Your task to perform on an android device: Clear the shopping cart on newegg. Search for "logitech g910" on newegg, select the first entry, and add it to the cart. Image 0: 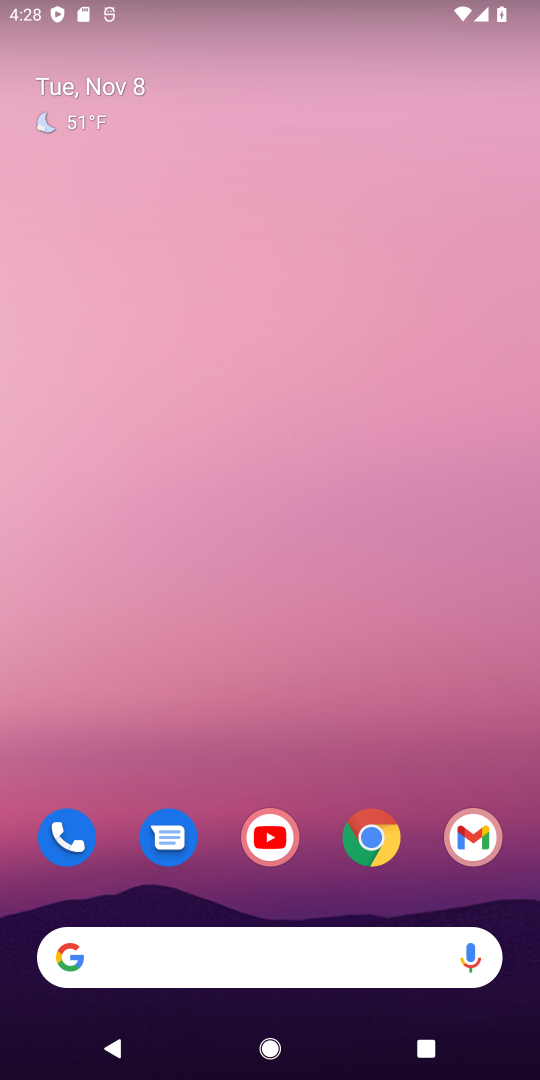
Step 0: click (386, 819)
Your task to perform on an android device: Clear the shopping cart on newegg. Search for "logitech g910" on newegg, select the first entry, and add it to the cart. Image 1: 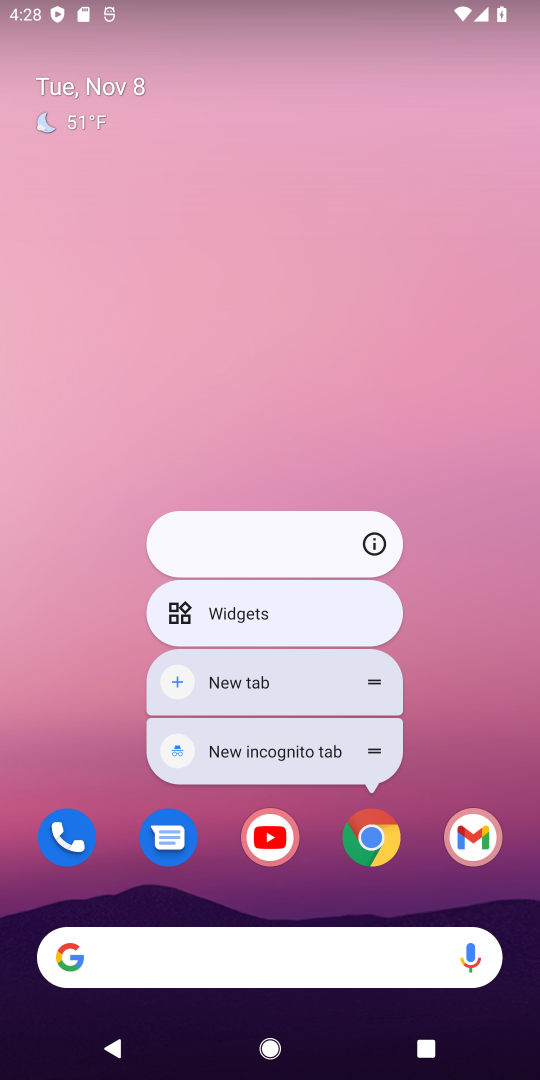
Step 1: click (396, 838)
Your task to perform on an android device: Clear the shopping cart on newegg. Search for "logitech g910" on newegg, select the first entry, and add it to the cart. Image 2: 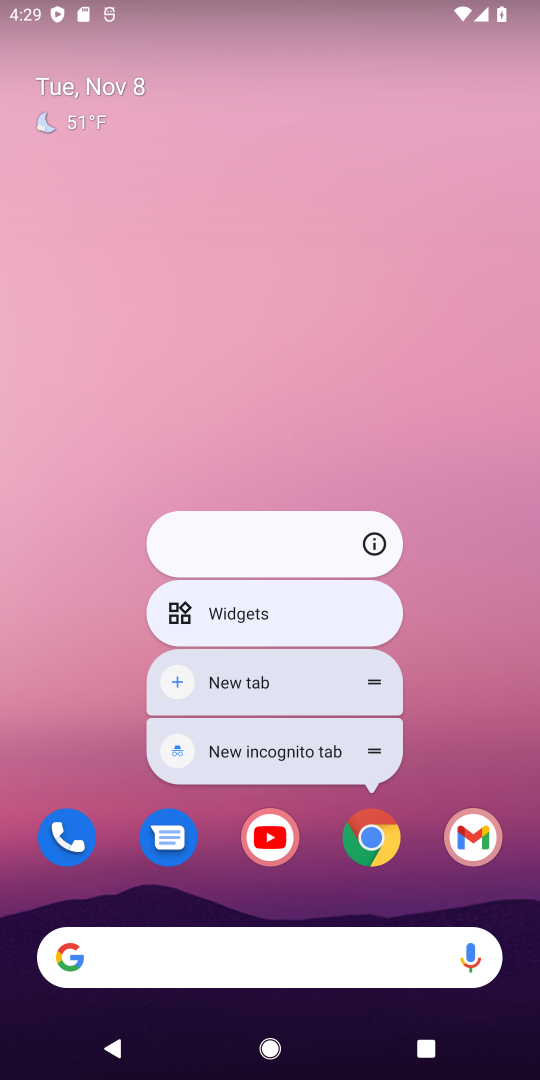
Step 2: click (395, 837)
Your task to perform on an android device: Clear the shopping cart on newegg. Search for "logitech g910" on newegg, select the first entry, and add it to the cart. Image 3: 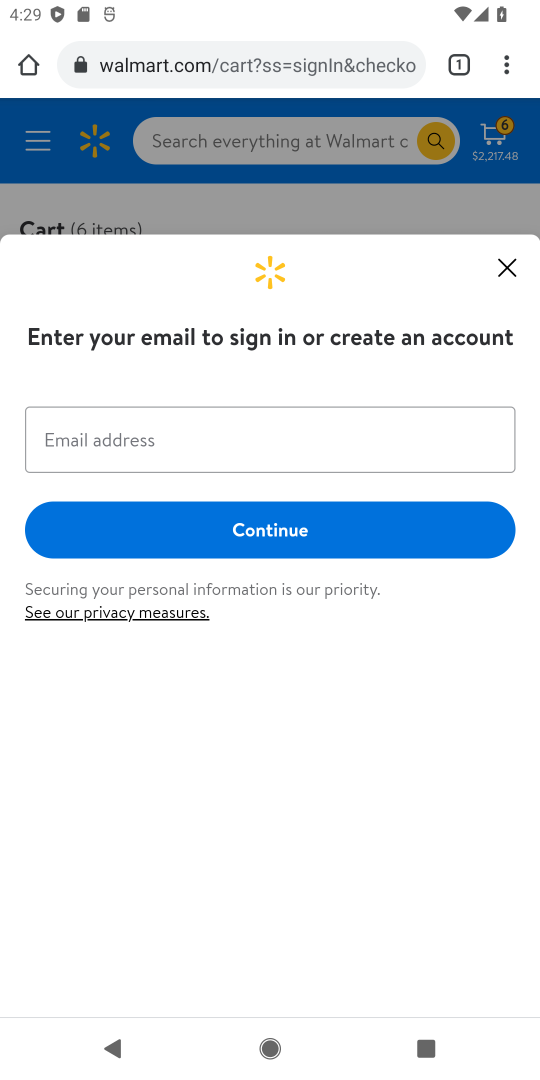
Step 3: click (155, 59)
Your task to perform on an android device: Clear the shopping cart on newegg. Search for "logitech g910" on newegg, select the first entry, and add it to the cart. Image 4: 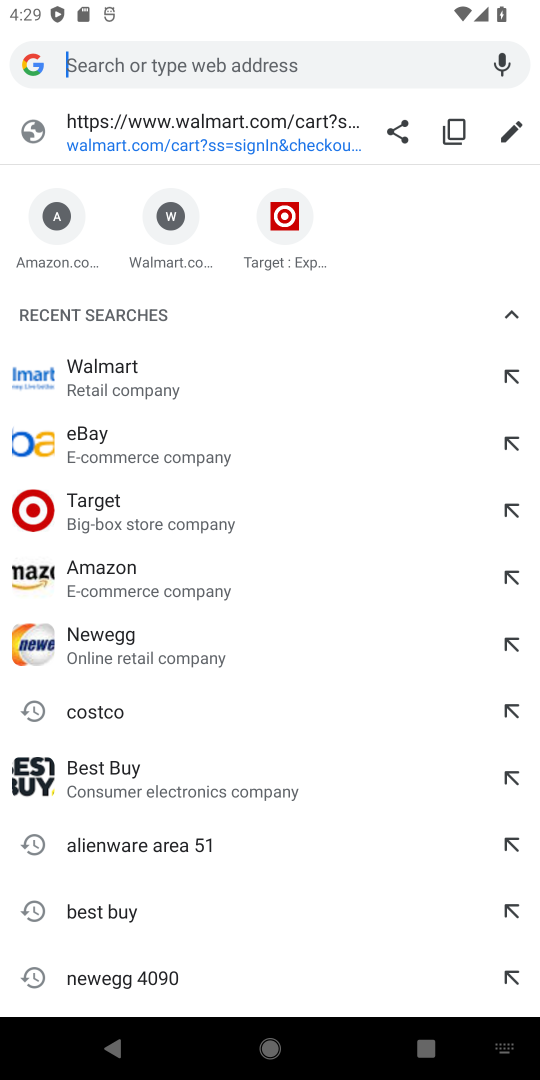
Step 4: click (97, 647)
Your task to perform on an android device: Clear the shopping cart on newegg. Search for "logitech g910" on newegg, select the first entry, and add it to the cart. Image 5: 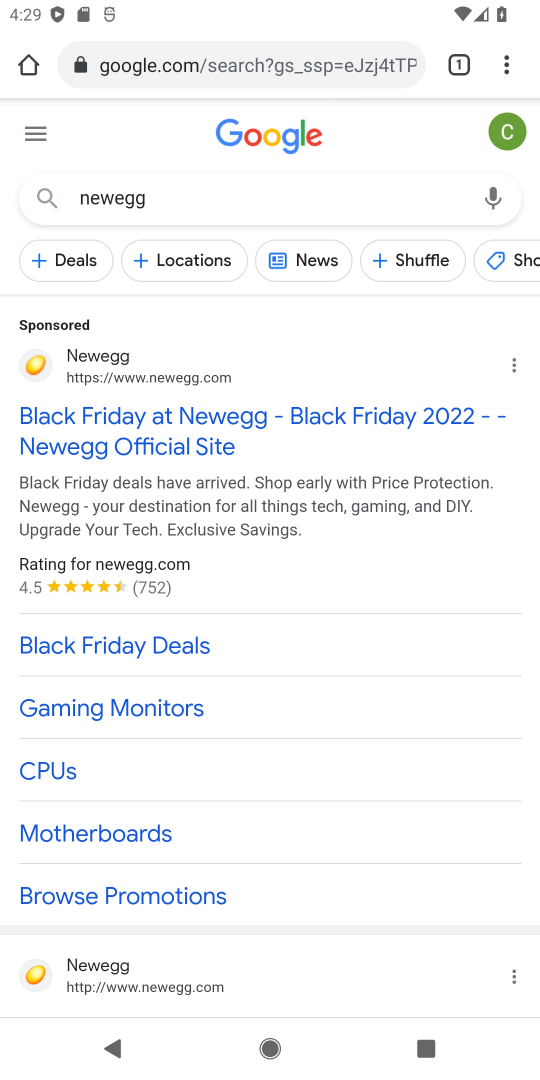
Step 5: drag from (196, 835) to (199, 229)
Your task to perform on an android device: Clear the shopping cart on newegg. Search for "logitech g910" on newegg, select the first entry, and add it to the cart. Image 6: 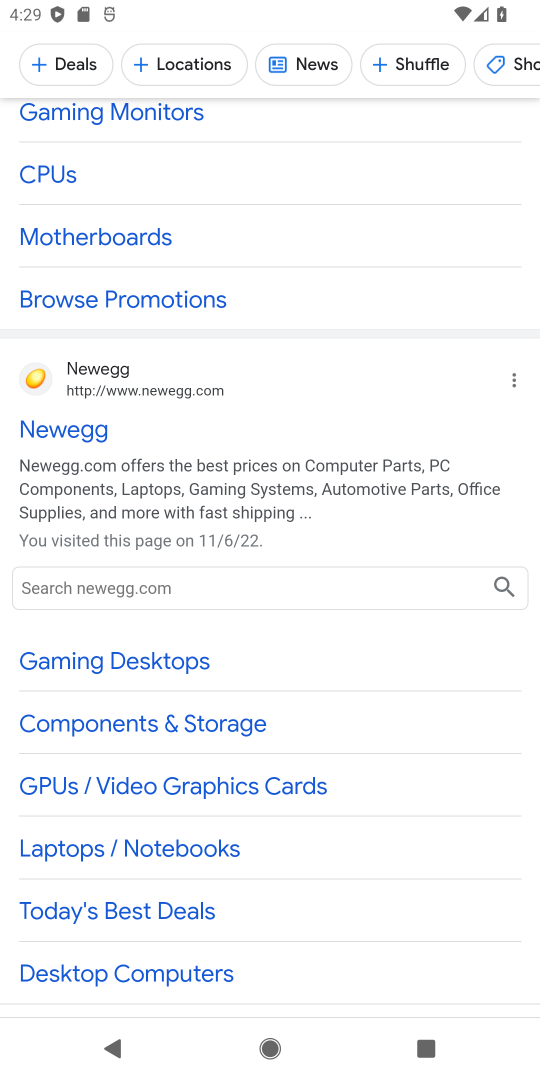
Step 6: click (82, 421)
Your task to perform on an android device: Clear the shopping cart on newegg. Search for "logitech g910" on newegg, select the first entry, and add it to the cart. Image 7: 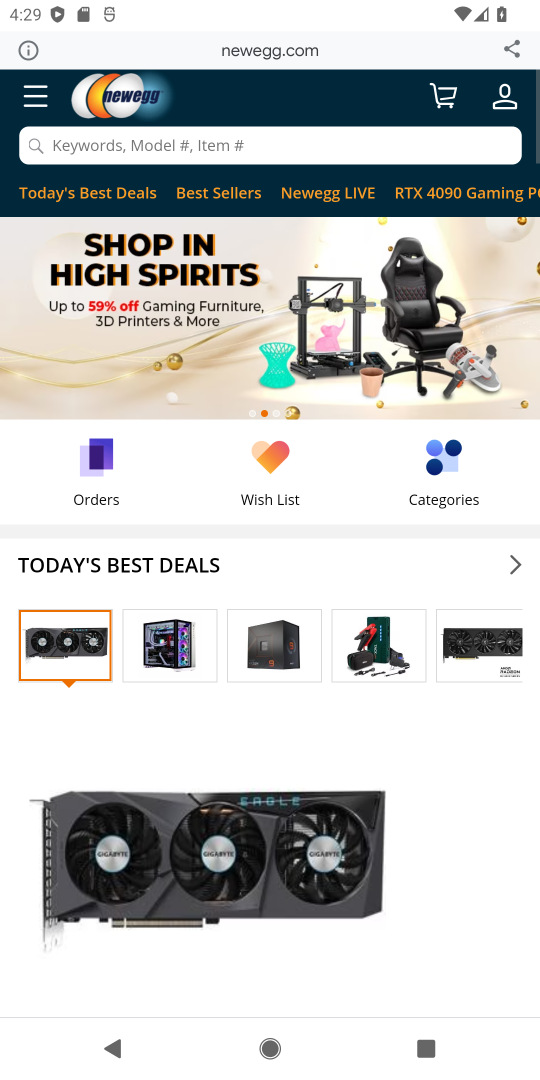
Step 7: click (145, 144)
Your task to perform on an android device: Clear the shopping cart on newegg. Search for "logitech g910" on newegg, select the first entry, and add it to the cart. Image 8: 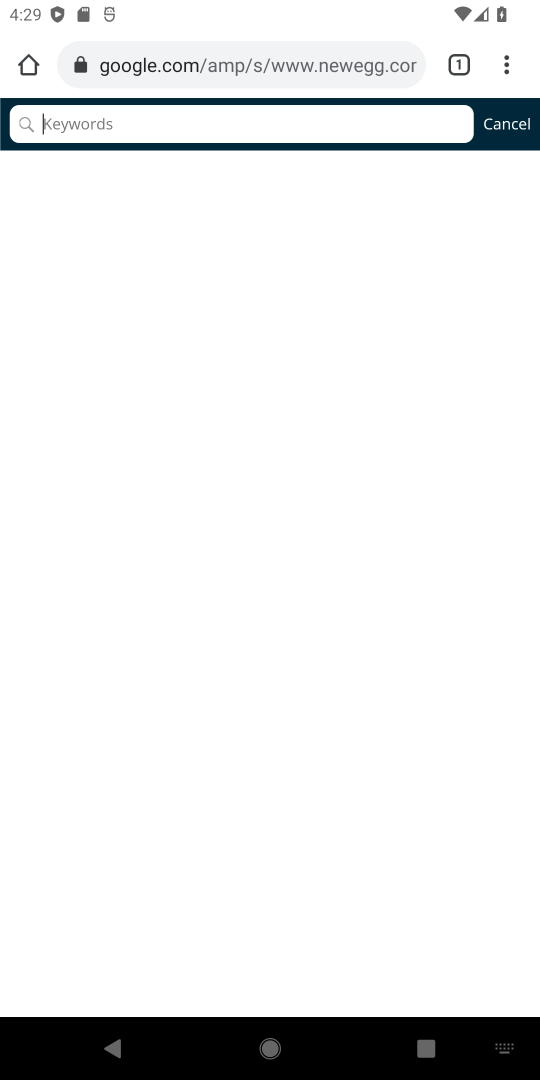
Step 8: type "logitech g 910"
Your task to perform on an android device: Clear the shopping cart on newegg. Search for "logitech g910" on newegg, select the first entry, and add it to the cart. Image 9: 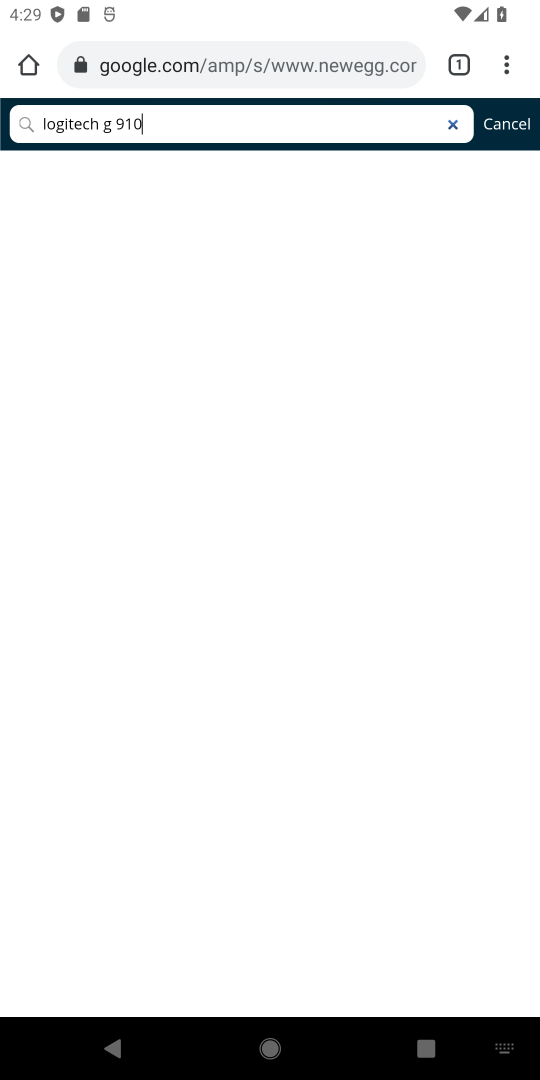
Step 9: click (29, 124)
Your task to perform on an android device: Clear the shopping cart on newegg. Search for "logitech g910" on newegg, select the first entry, and add it to the cart. Image 10: 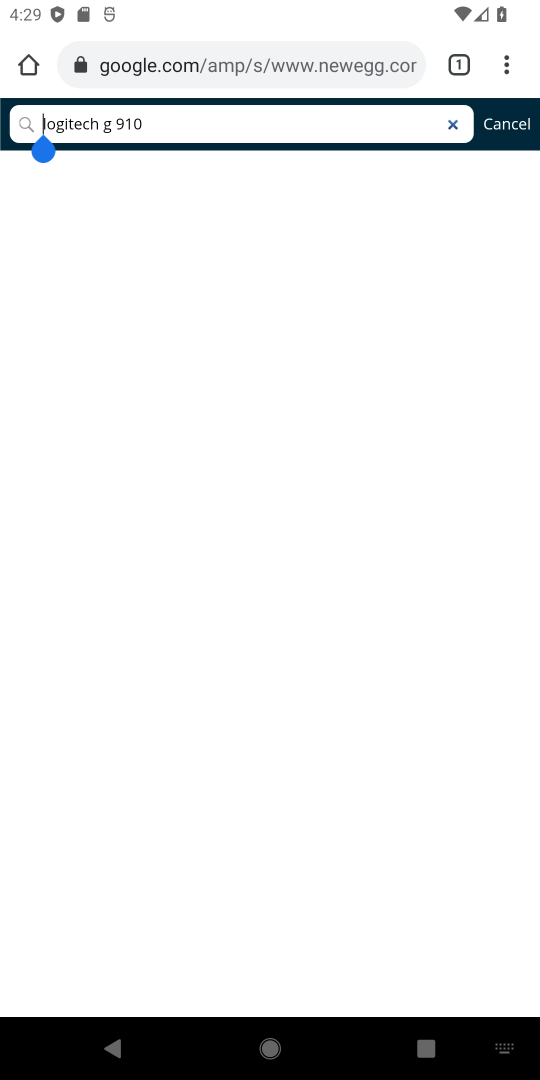
Step 10: click (462, 127)
Your task to perform on an android device: Clear the shopping cart on newegg. Search for "logitech g910" on newegg, select the first entry, and add it to the cart. Image 11: 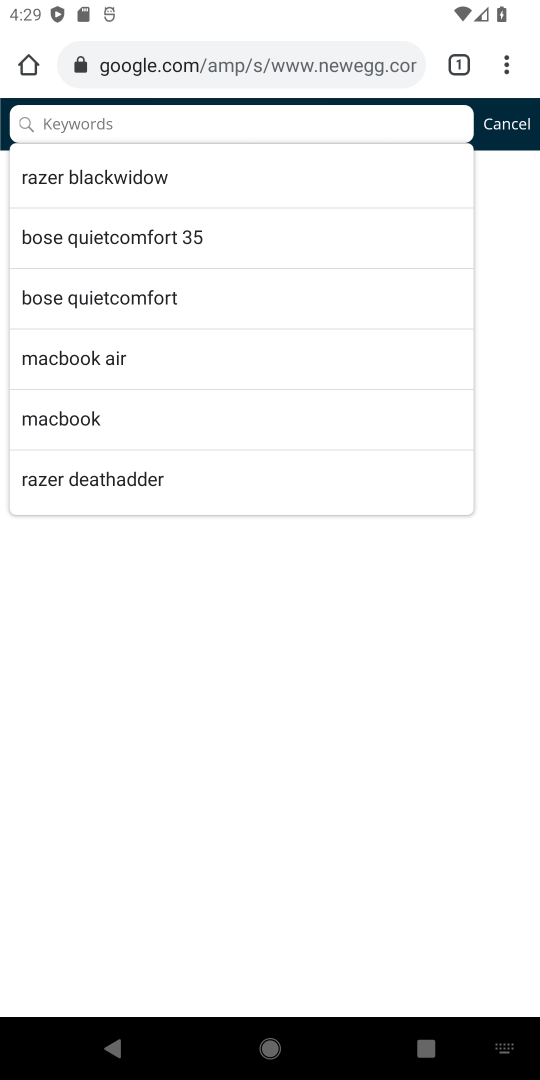
Step 11: press back button
Your task to perform on an android device: Clear the shopping cart on newegg. Search for "logitech g910" on newegg, select the first entry, and add it to the cart. Image 12: 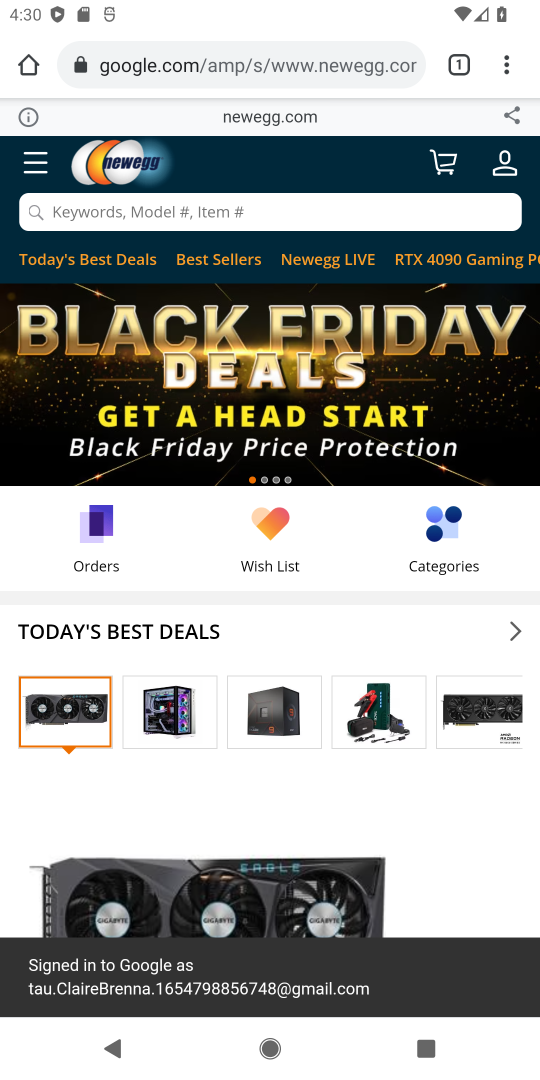
Step 12: drag from (166, 658) to (262, 174)
Your task to perform on an android device: Clear the shopping cart on newegg. Search for "logitech g910" on newegg, select the first entry, and add it to the cart. Image 13: 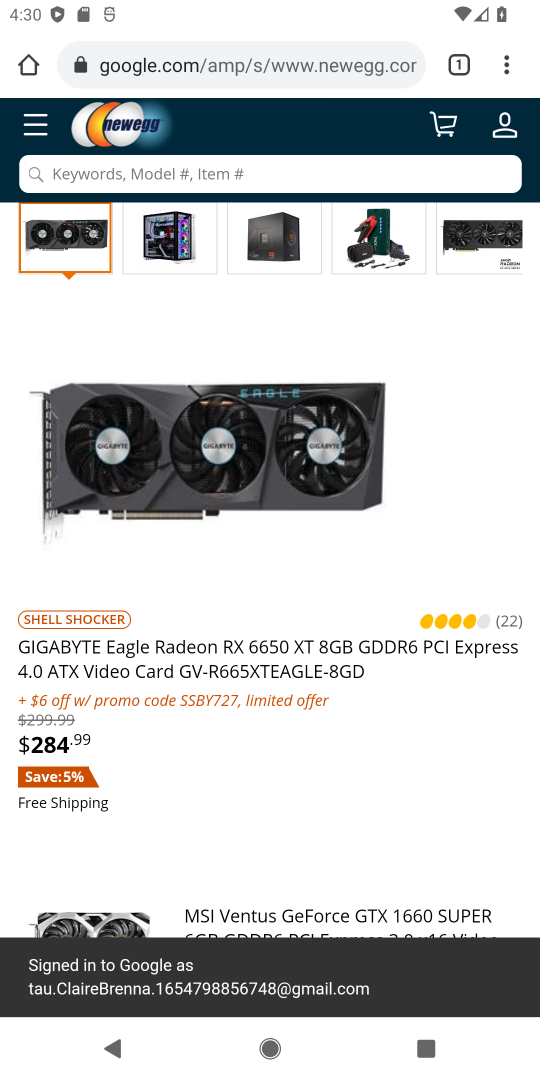
Step 13: press back button
Your task to perform on an android device: Clear the shopping cart on newegg. Search for "logitech g910" on newegg, select the first entry, and add it to the cart. Image 14: 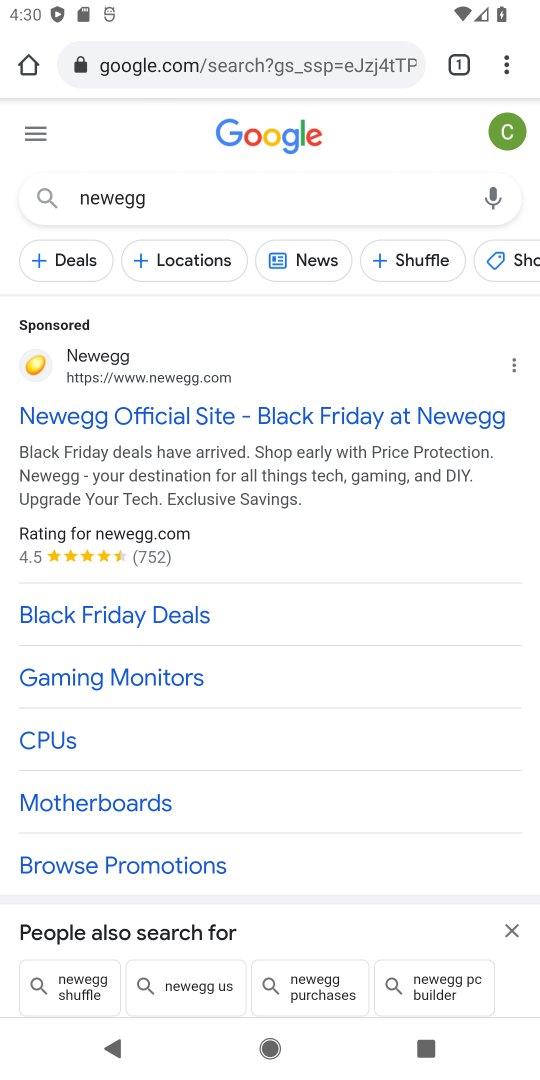
Step 14: drag from (272, 645) to (287, 248)
Your task to perform on an android device: Clear the shopping cart on newegg. Search for "logitech g910" on newegg, select the first entry, and add it to the cart. Image 15: 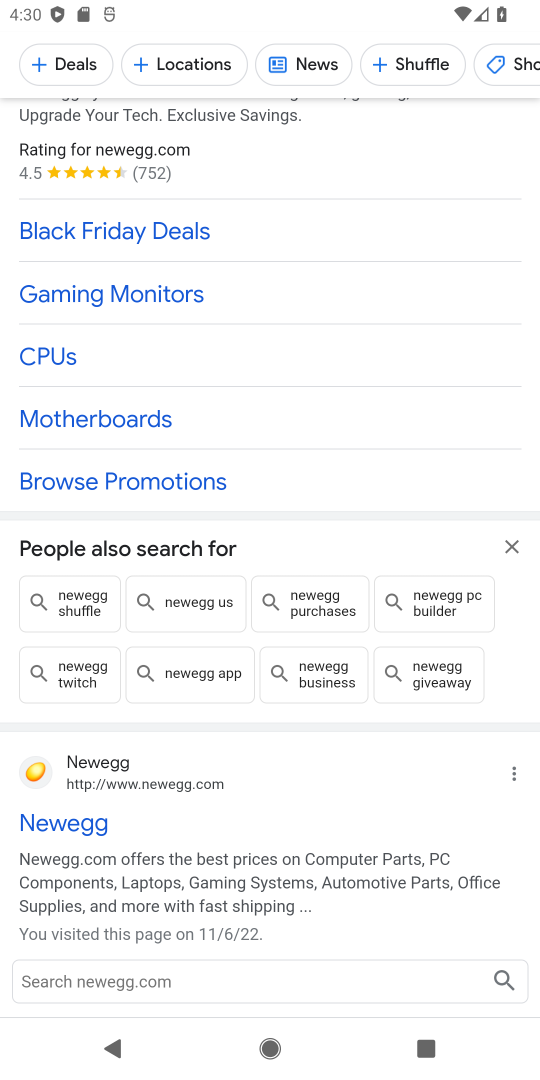
Step 15: drag from (130, 889) to (199, 412)
Your task to perform on an android device: Clear the shopping cart on newegg. Search for "logitech g910" on newegg, select the first entry, and add it to the cart. Image 16: 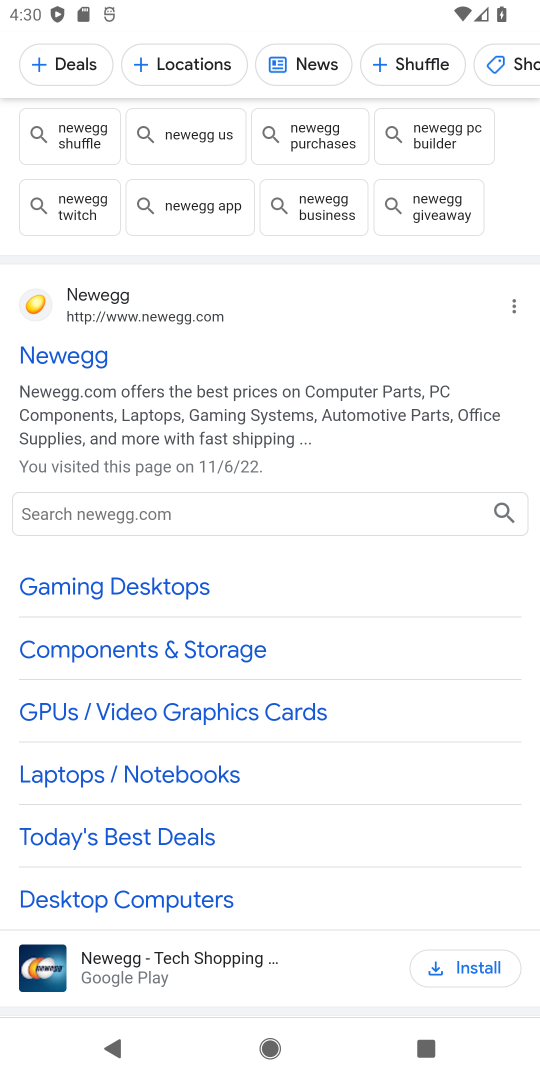
Step 16: click (94, 955)
Your task to perform on an android device: Clear the shopping cart on newegg. Search for "logitech g910" on newegg, select the first entry, and add it to the cart. Image 17: 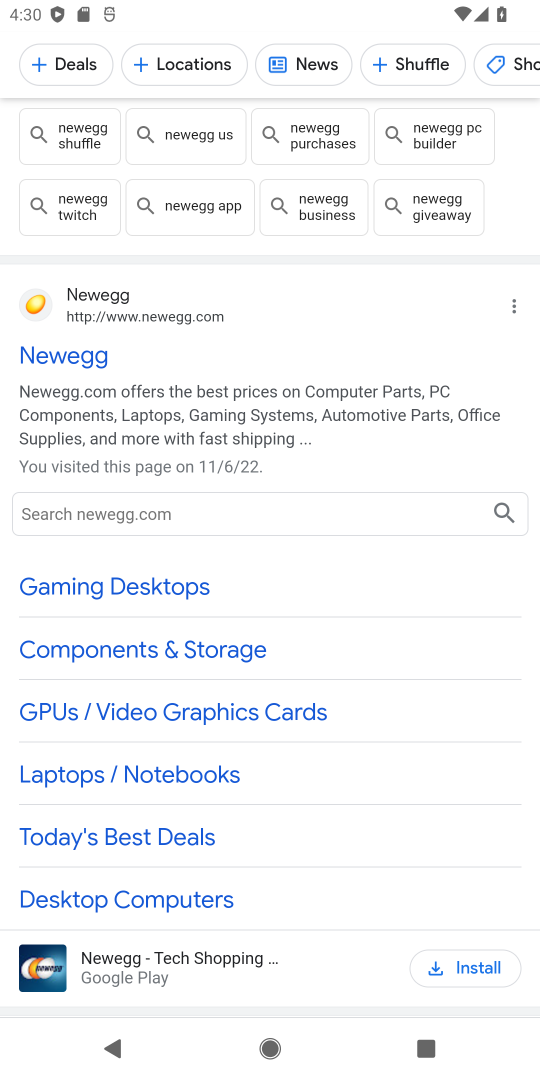
Step 17: click (96, 953)
Your task to perform on an android device: Clear the shopping cart on newegg. Search for "logitech g910" on newegg, select the first entry, and add it to the cart. Image 18: 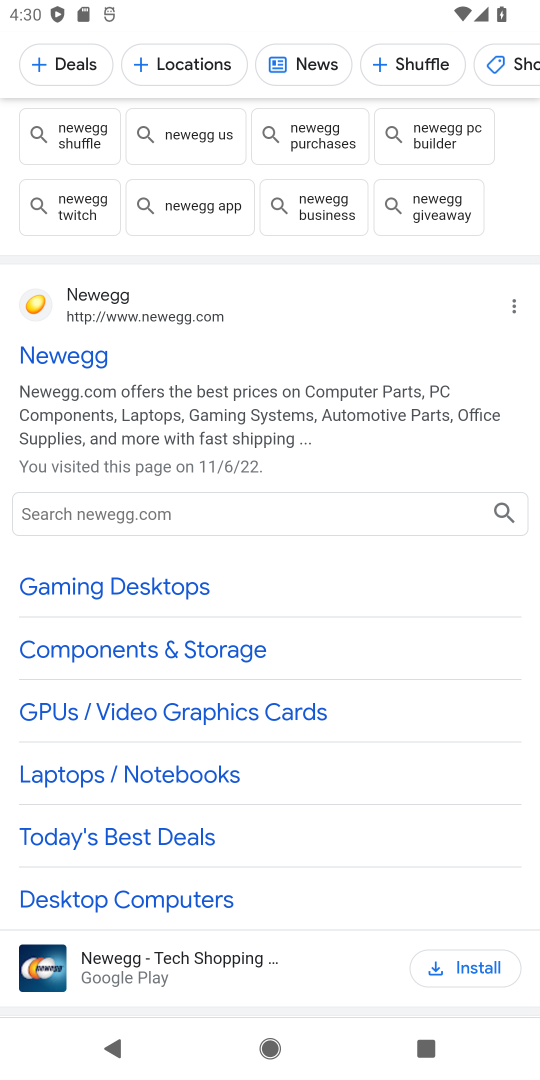
Step 18: click (93, 953)
Your task to perform on an android device: Clear the shopping cart on newegg. Search for "logitech g910" on newegg, select the first entry, and add it to the cart. Image 19: 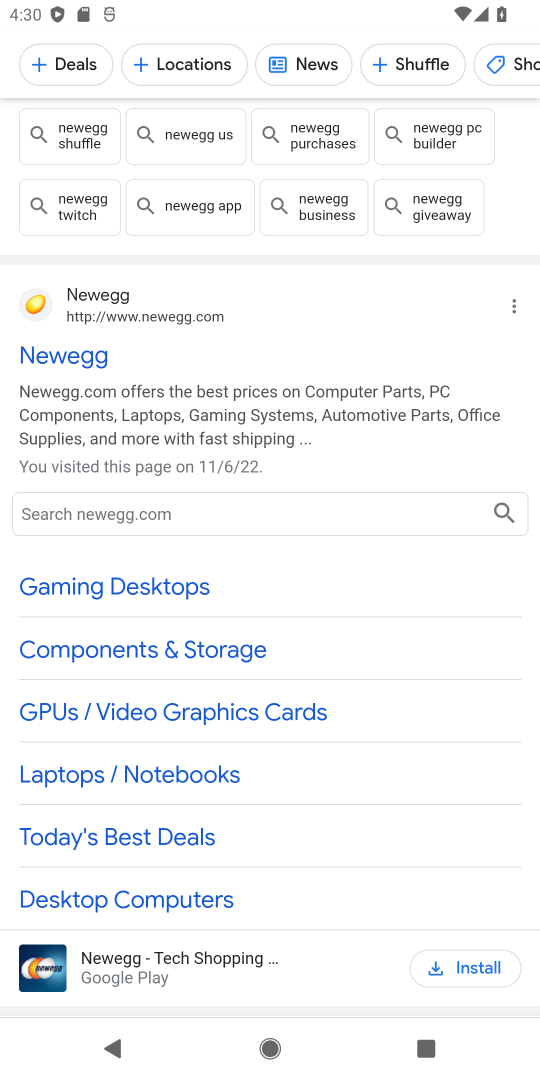
Step 19: drag from (271, 861) to (298, 271)
Your task to perform on an android device: Clear the shopping cart on newegg. Search for "logitech g910" on newegg, select the first entry, and add it to the cart. Image 20: 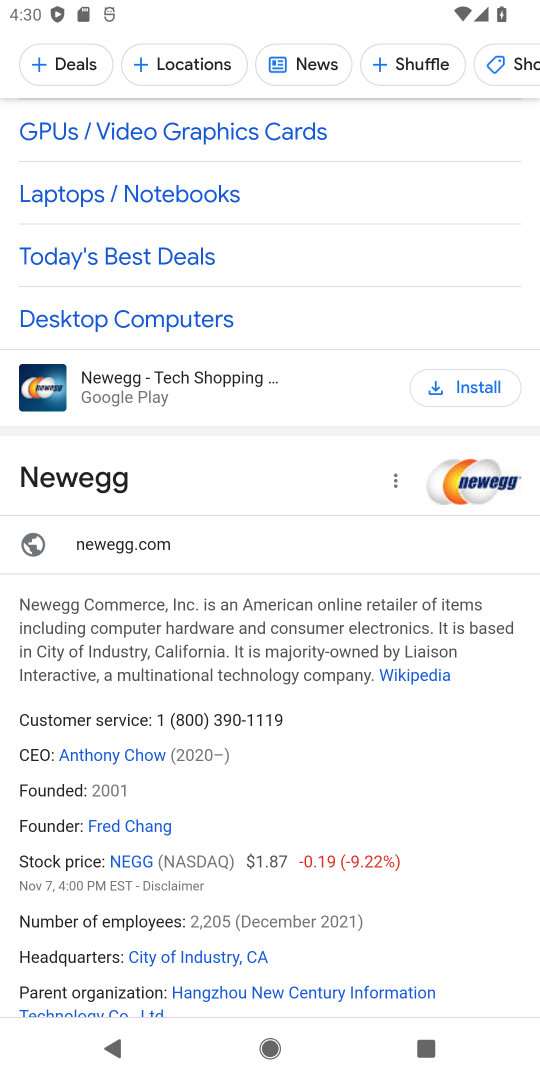
Step 20: drag from (205, 680) to (254, 226)
Your task to perform on an android device: Clear the shopping cart on newegg. Search for "logitech g910" on newegg, select the first entry, and add it to the cart. Image 21: 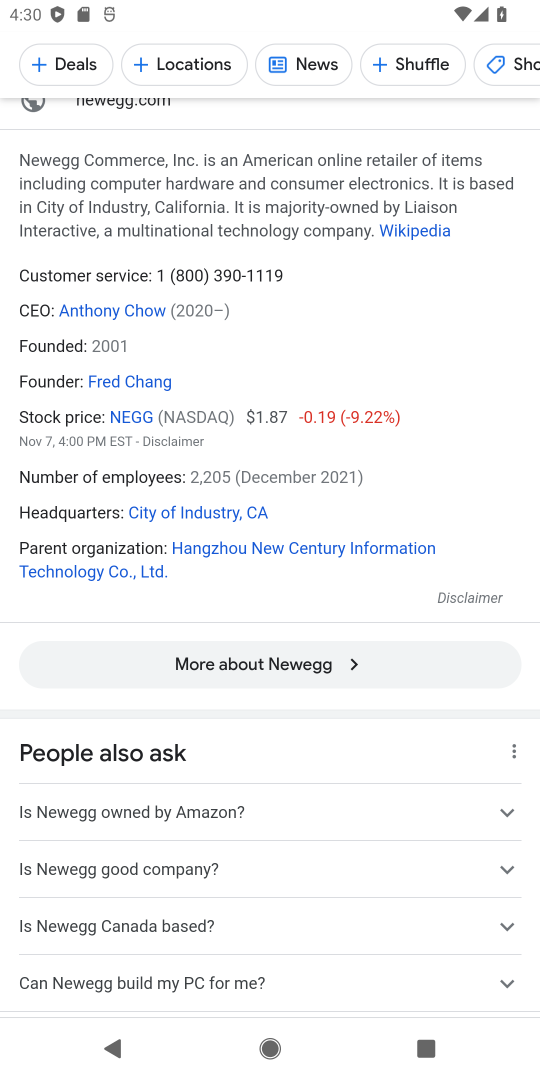
Step 21: drag from (257, 396) to (221, 1032)
Your task to perform on an android device: Clear the shopping cart on newegg. Search for "logitech g910" on newegg, select the first entry, and add it to the cart. Image 22: 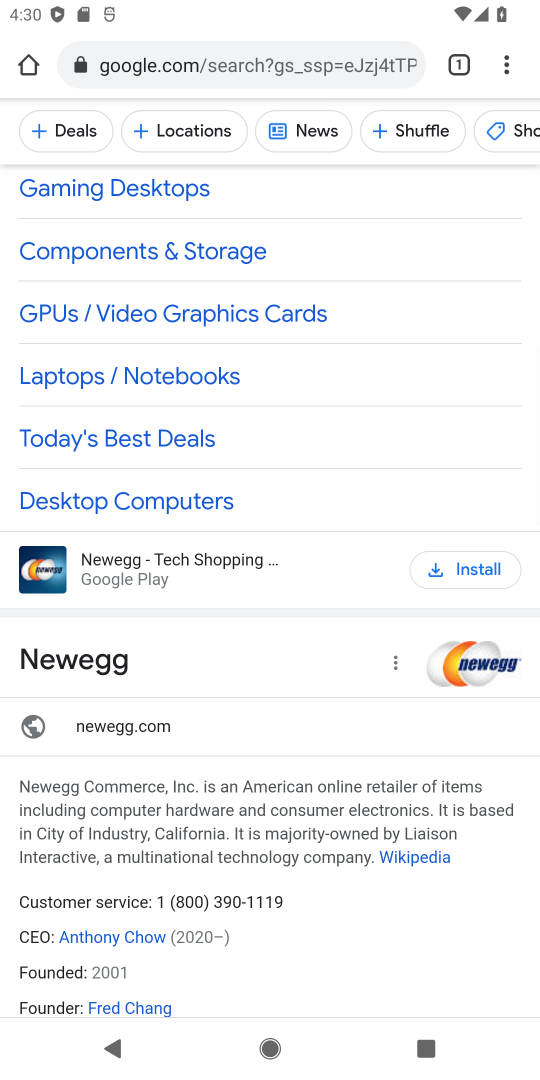
Step 22: click (164, 885)
Your task to perform on an android device: Clear the shopping cart on newegg. Search for "logitech g910" on newegg, select the first entry, and add it to the cart. Image 23: 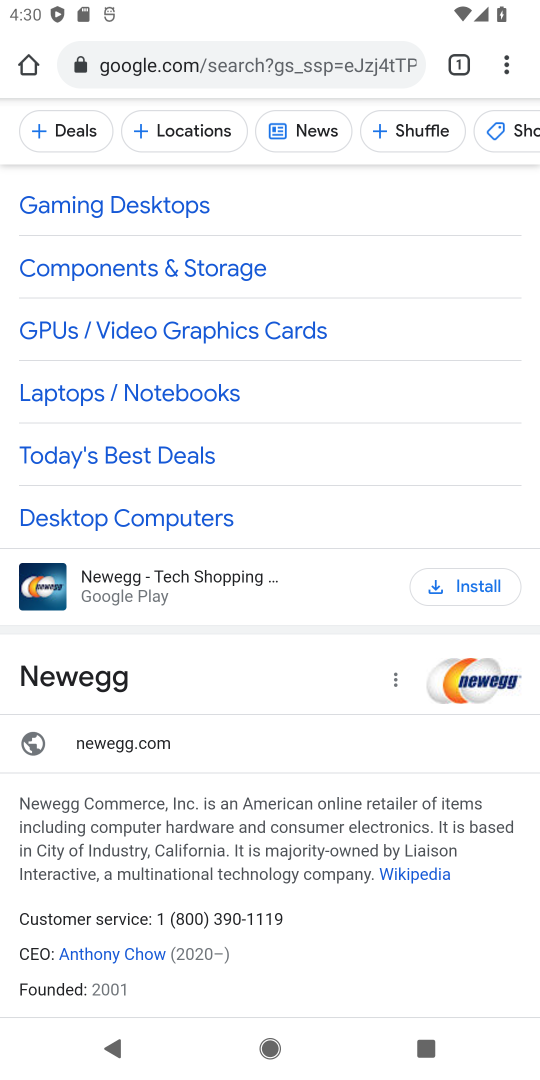
Step 23: drag from (180, 348) to (188, 740)
Your task to perform on an android device: Clear the shopping cart on newegg. Search for "logitech g910" on newegg, select the first entry, and add it to the cart. Image 24: 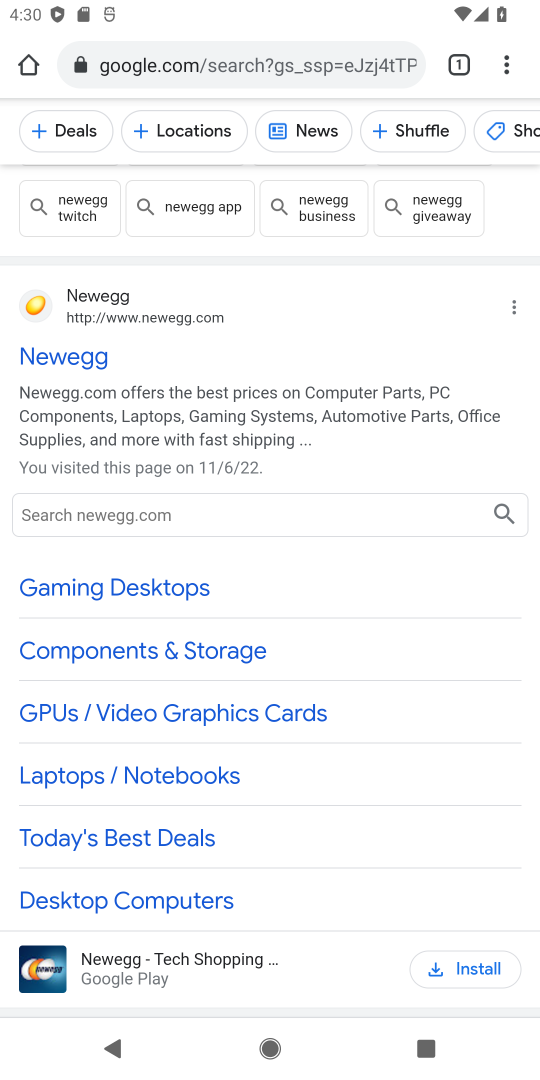
Step 24: drag from (177, 562) to (177, 795)
Your task to perform on an android device: Clear the shopping cart on newegg. Search for "logitech g910" on newegg, select the first entry, and add it to the cart. Image 25: 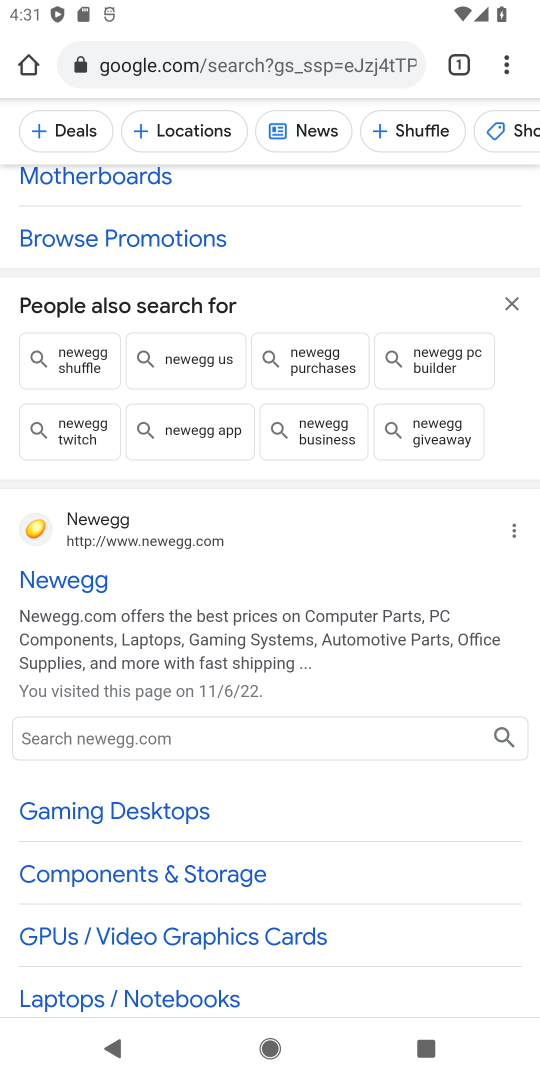
Step 25: click (79, 580)
Your task to perform on an android device: Clear the shopping cart on newegg. Search for "logitech g910" on newegg, select the first entry, and add it to the cart. Image 26: 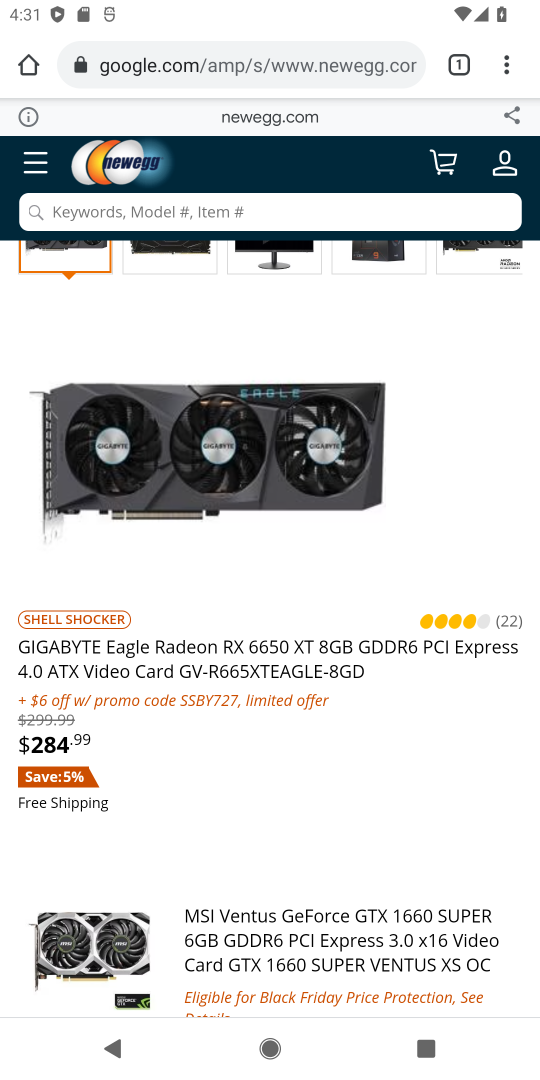
Step 26: click (162, 220)
Your task to perform on an android device: Clear the shopping cart on newegg. Search for "logitech g910" on newegg, select the first entry, and add it to the cart. Image 27: 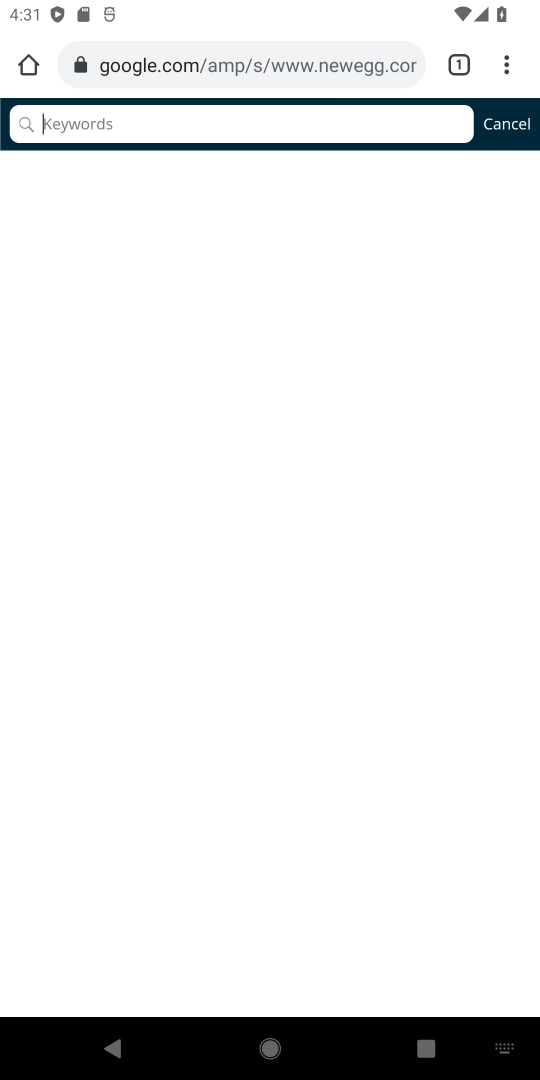
Step 27: type "logitech 910"
Your task to perform on an android device: Clear the shopping cart on newegg. Search for "logitech g910" on newegg, select the first entry, and add it to the cart. Image 28: 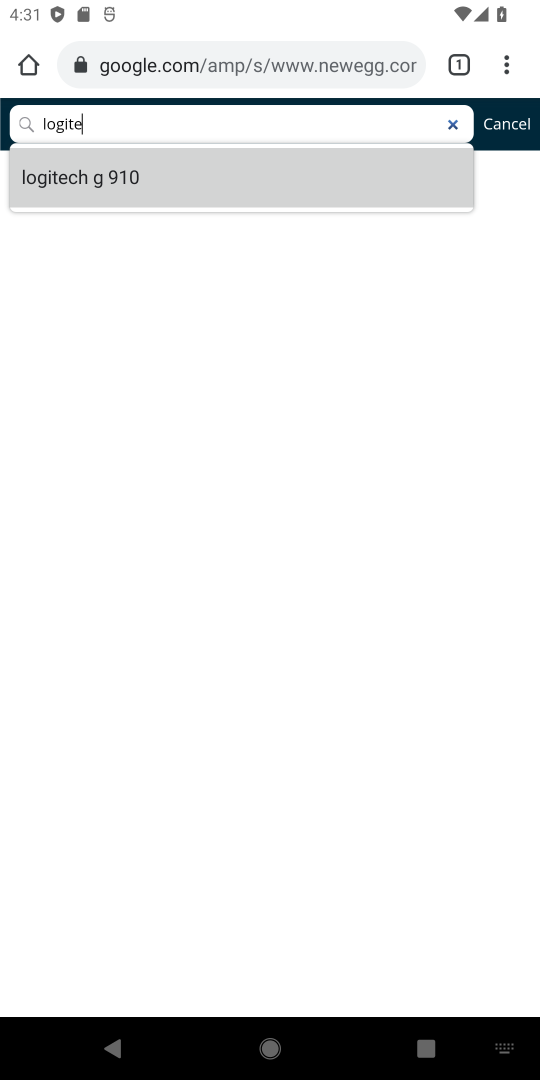
Step 28: type ""
Your task to perform on an android device: Clear the shopping cart on newegg. Search for "logitech g910" on newegg, select the first entry, and add it to the cart. Image 29: 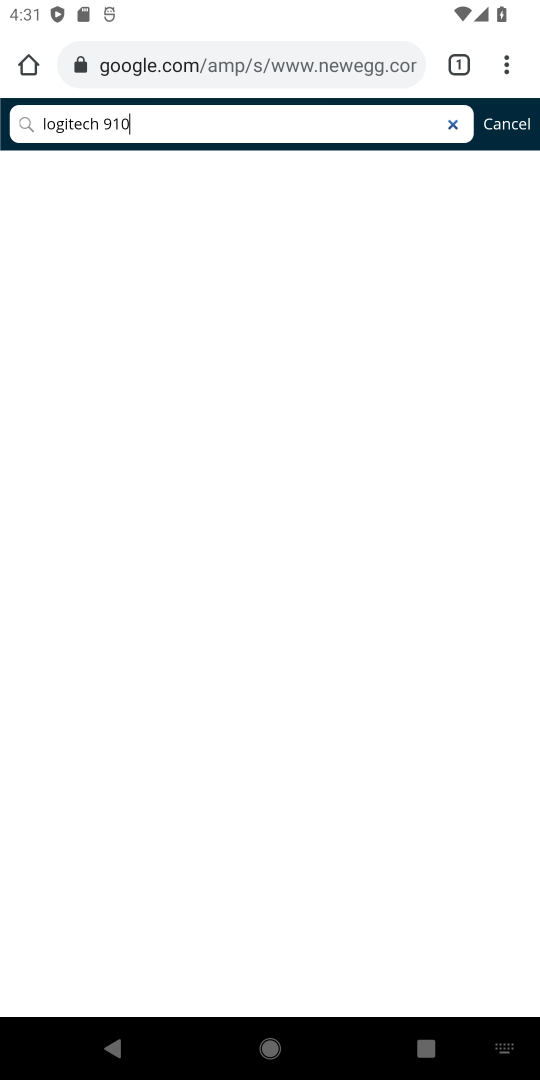
Step 29: type ""
Your task to perform on an android device: Clear the shopping cart on newegg. Search for "logitech g910" on newegg, select the first entry, and add it to the cart. Image 30: 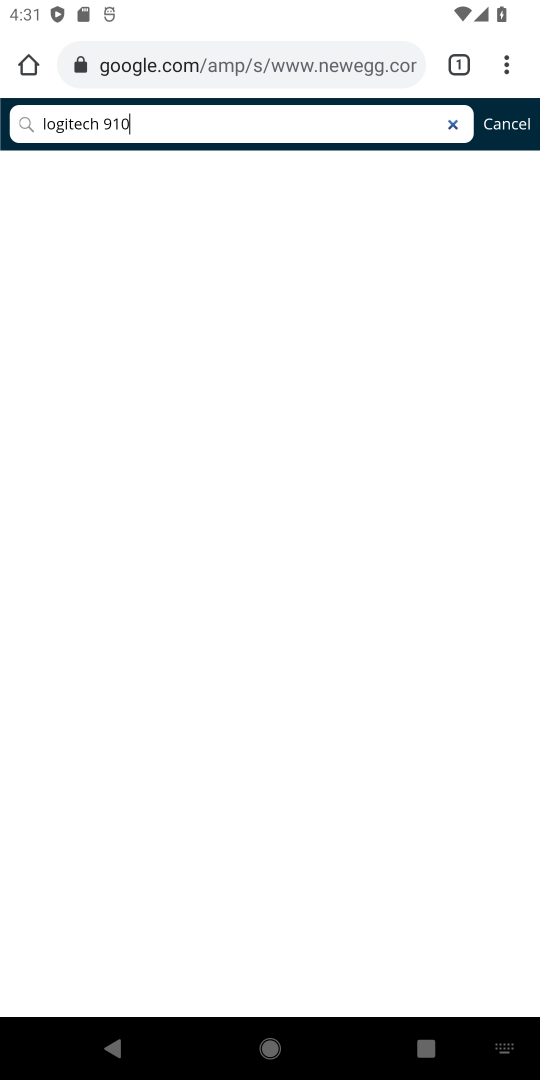
Step 30: task complete